Your task to perform on an android device: open a new tab in the chrome app Image 0: 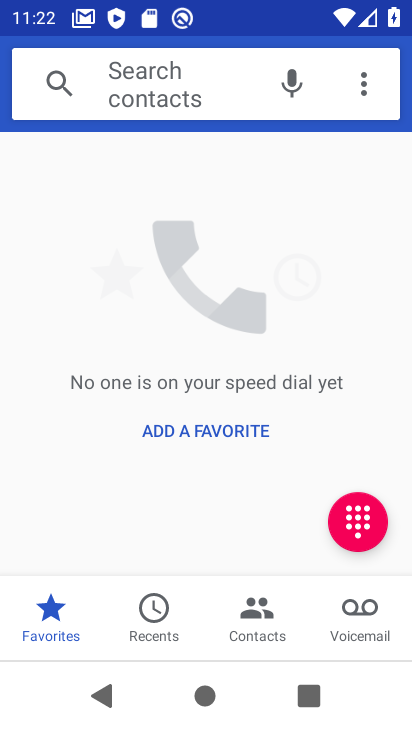
Step 0: press home button
Your task to perform on an android device: open a new tab in the chrome app Image 1: 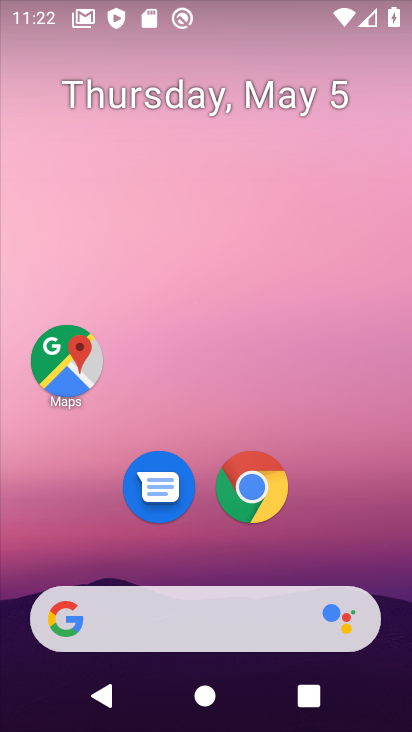
Step 1: click (251, 492)
Your task to perform on an android device: open a new tab in the chrome app Image 2: 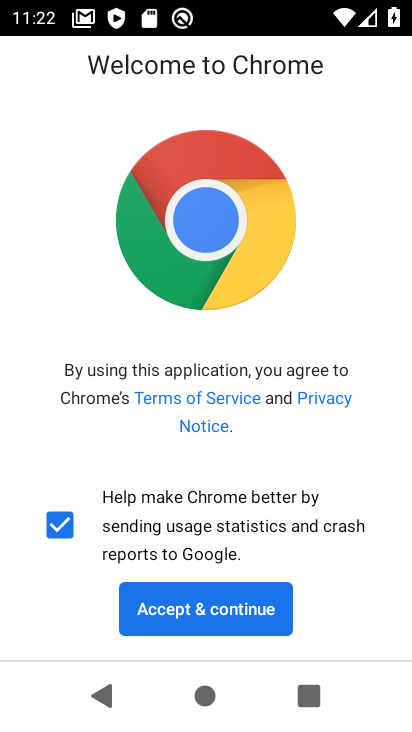
Step 2: click (189, 607)
Your task to perform on an android device: open a new tab in the chrome app Image 3: 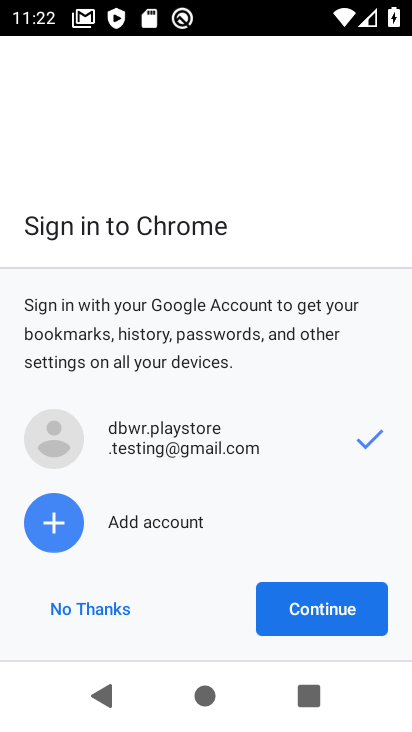
Step 3: click (288, 616)
Your task to perform on an android device: open a new tab in the chrome app Image 4: 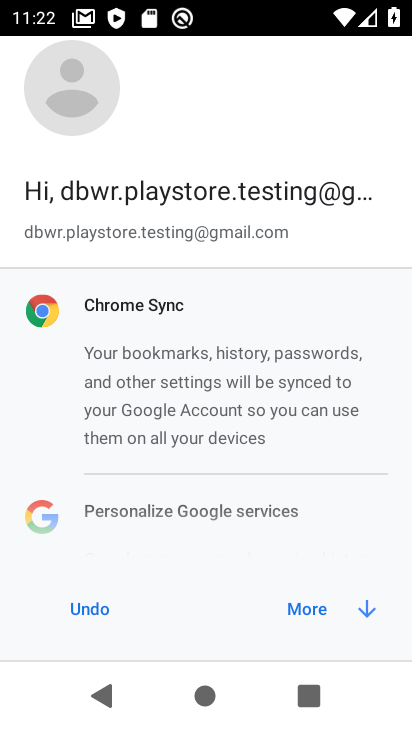
Step 4: click (288, 616)
Your task to perform on an android device: open a new tab in the chrome app Image 5: 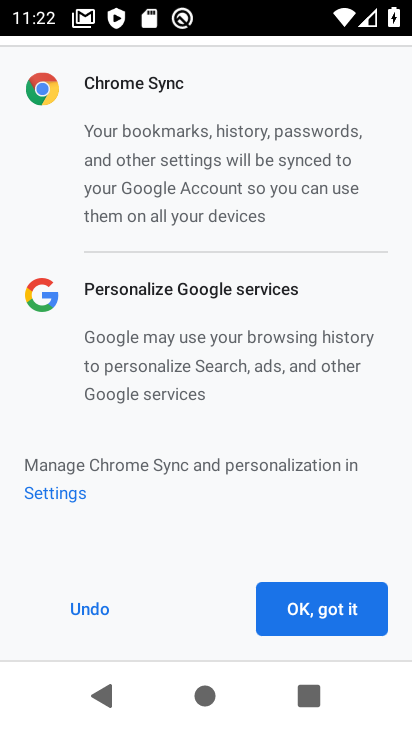
Step 5: click (294, 609)
Your task to perform on an android device: open a new tab in the chrome app Image 6: 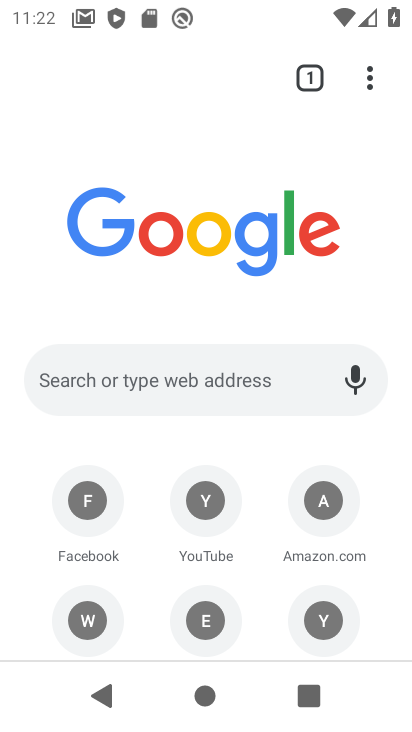
Step 6: task complete